Your task to perform on an android device: toggle data saver in the chrome app Image 0: 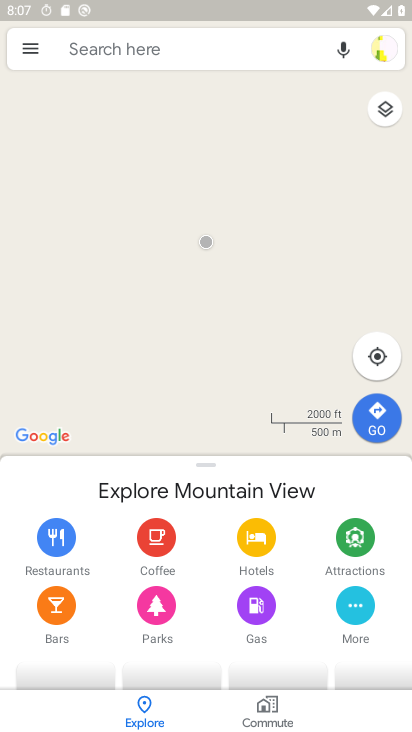
Step 0: press home button
Your task to perform on an android device: toggle data saver in the chrome app Image 1: 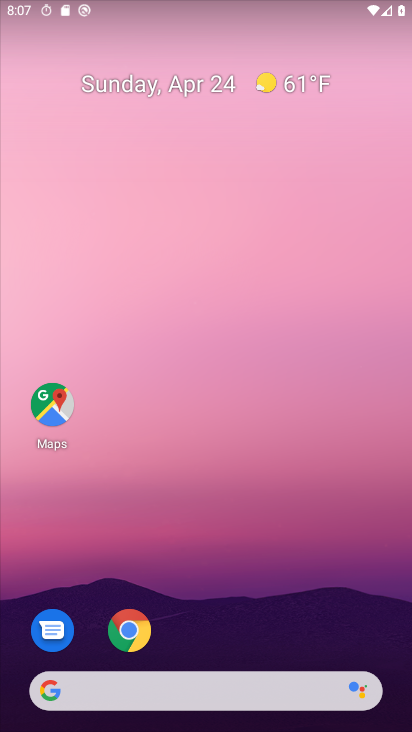
Step 1: drag from (347, 594) to (361, 80)
Your task to perform on an android device: toggle data saver in the chrome app Image 2: 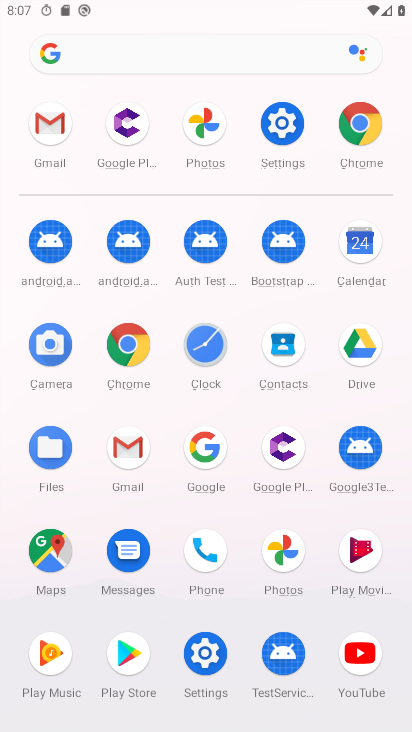
Step 2: click (365, 127)
Your task to perform on an android device: toggle data saver in the chrome app Image 3: 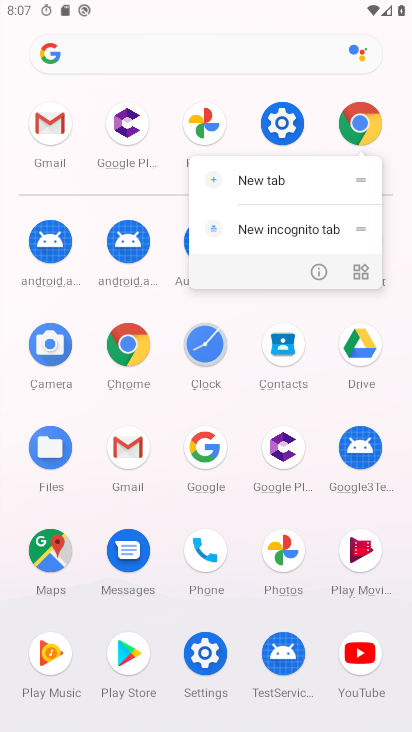
Step 3: click (366, 125)
Your task to perform on an android device: toggle data saver in the chrome app Image 4: 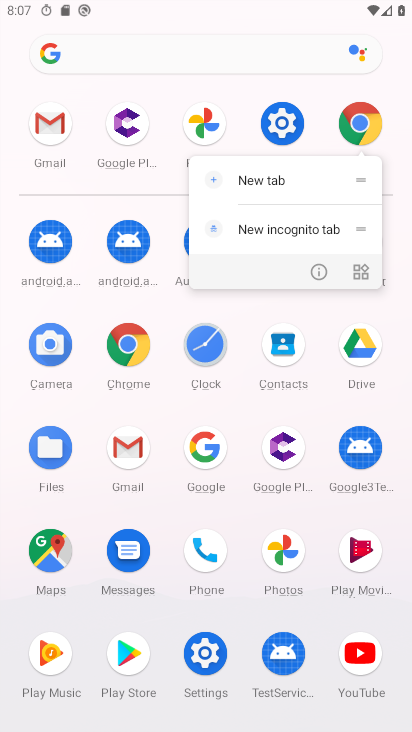
Step 4: click (355, 119)
Your task to perform on an android device: toggle data saver in the chrome app Image 5: 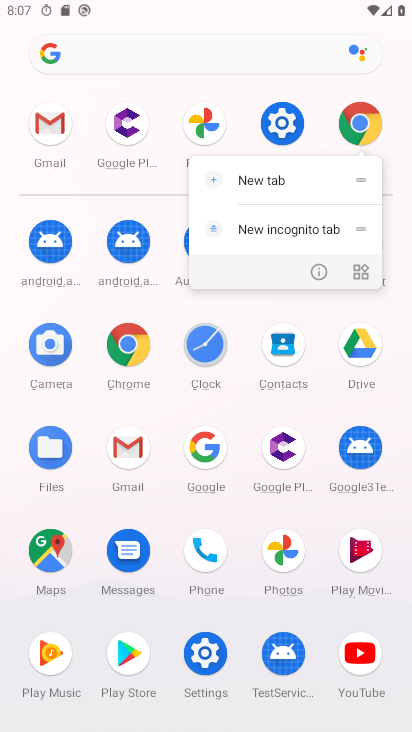
Step 5: click (347, 124)
Your task to perform on an android device: toggle data saver in the chrome app Image 6: 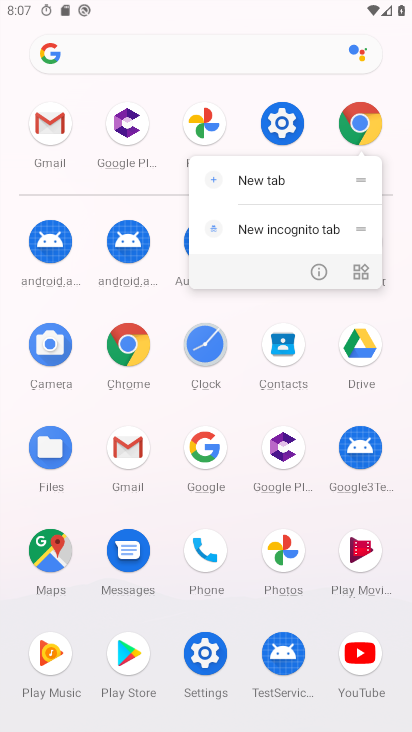
Step 6: click (363, 117)
Your task to perform on an android device: toggle data saver in the chrome app Image 7: 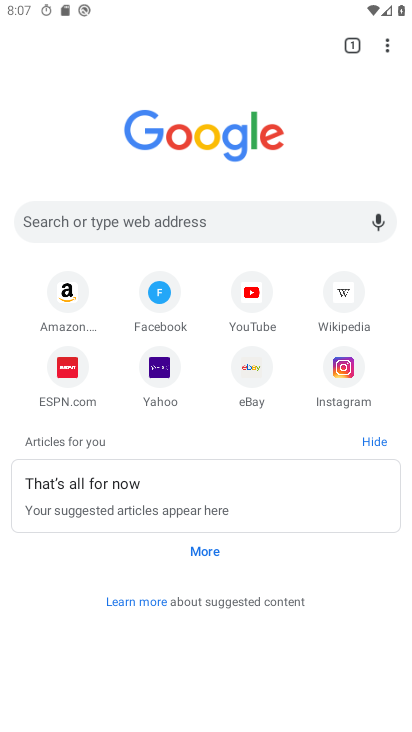
Step 7: click (386, 45)
Your task to perform on an android device: toggle data saver in the chrome app Image 8: 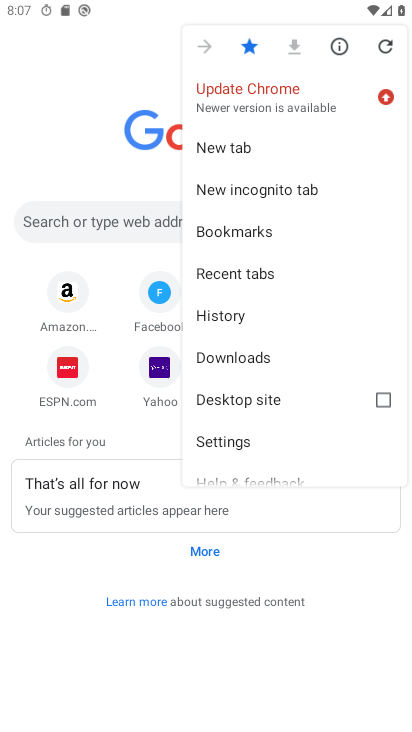
Step 8: click (251, 443)
Your task to perform on an android device: toggle data saver in the chrome app Image 9: 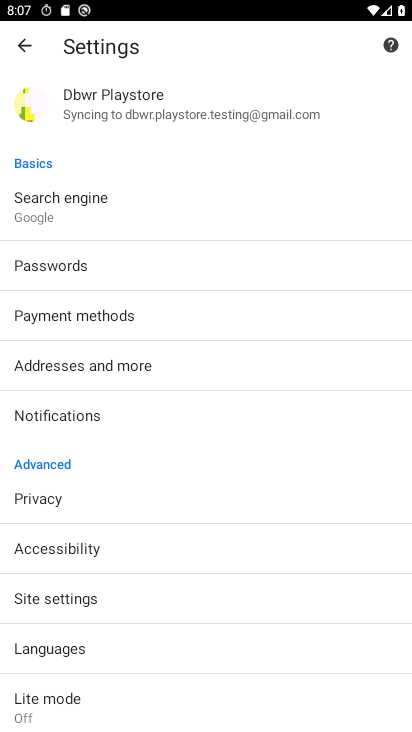
Step 9: drag from (312, 641) to (324, 499)
Your task to perform on an android device: toggle data saver in the chrome app Image 10: 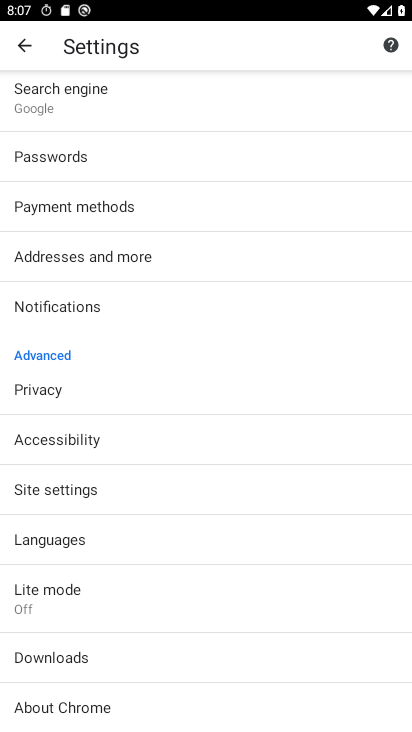
Step 10: drag from (321, 675) to (310, 449)
Your task to perform on an android device: toggle data saver in the chrome app Image 11: 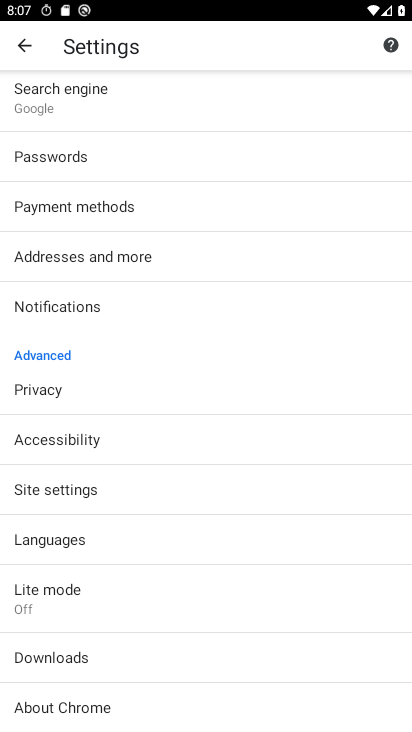
Step 11: drag from (309, 303) to (321, 404)
Your task to perform on an android device: toggle data saver in the chrome app Image 12: 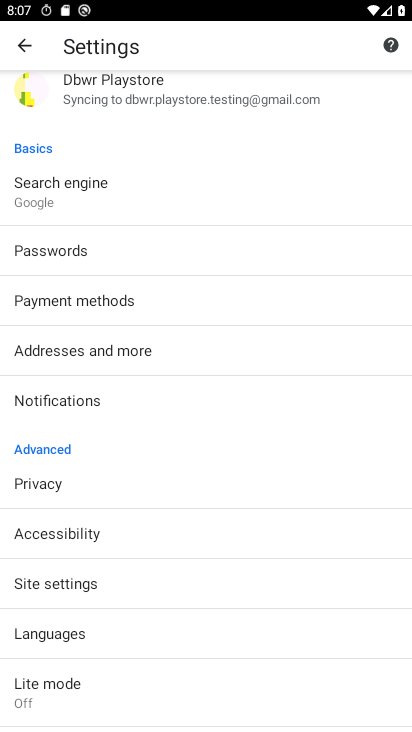
Step 12: drag from (301, 256) to (306, 442)
Your task to perform on an android device: toggle data saver in the chrome app Image 13: 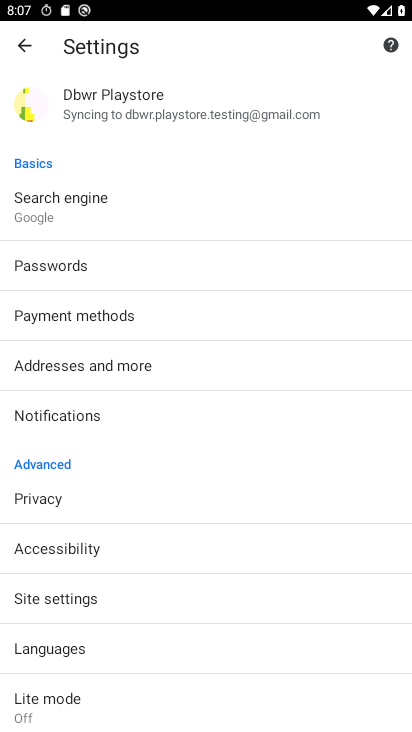
Step 13: drag from (310, 480) to (315, 365)
Your task to perform on an android device: toggle data saver in the chrome app Image 14: 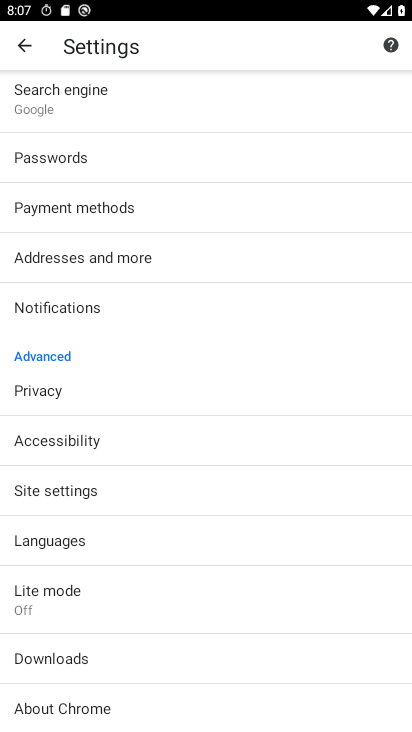
Step 14: click (283, 584)
Your task to perform on an android device: toggle data saver in the chrome app Image 15: 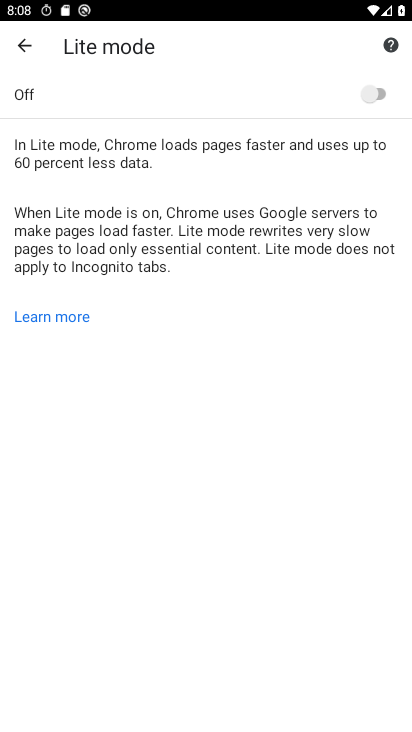
Step 15: click (356, 99)
Your task to perform on an android device: toggle data saver in the chrome app Image 16: 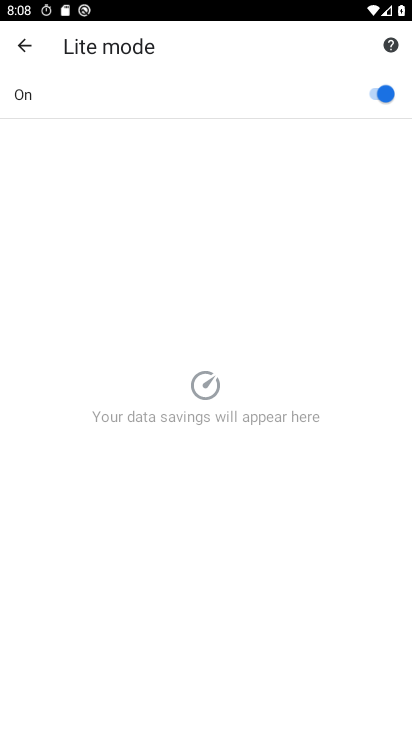
Step 16: task complete